Your task to perform on an android device: Search for flights from NYC to Mexico city Image 0: 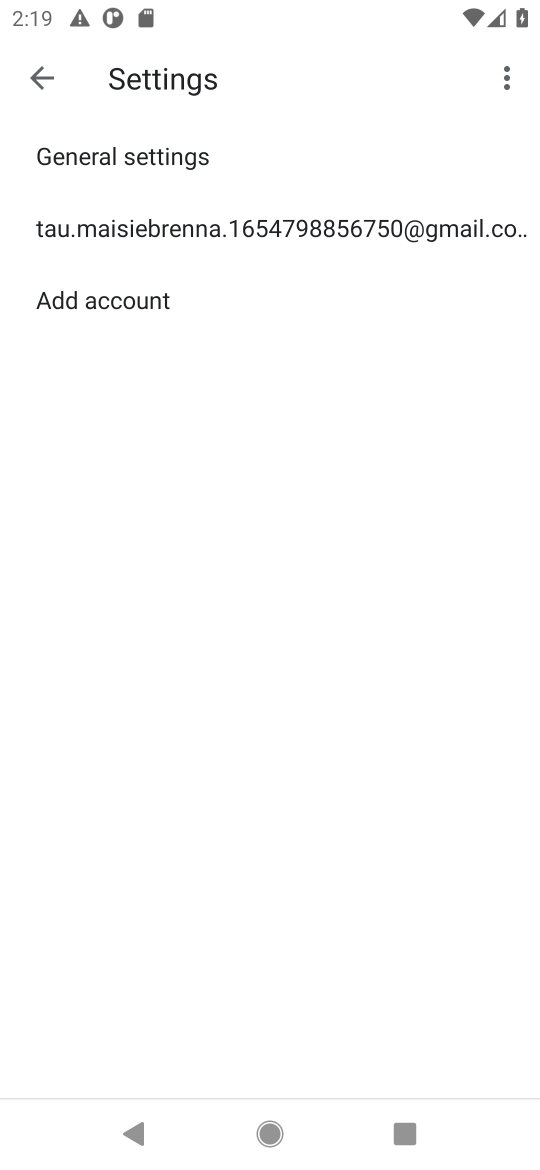
Step 0: press home button
Your task to perform on an android device: Search for flights from NYC to Mexico city Image 1: 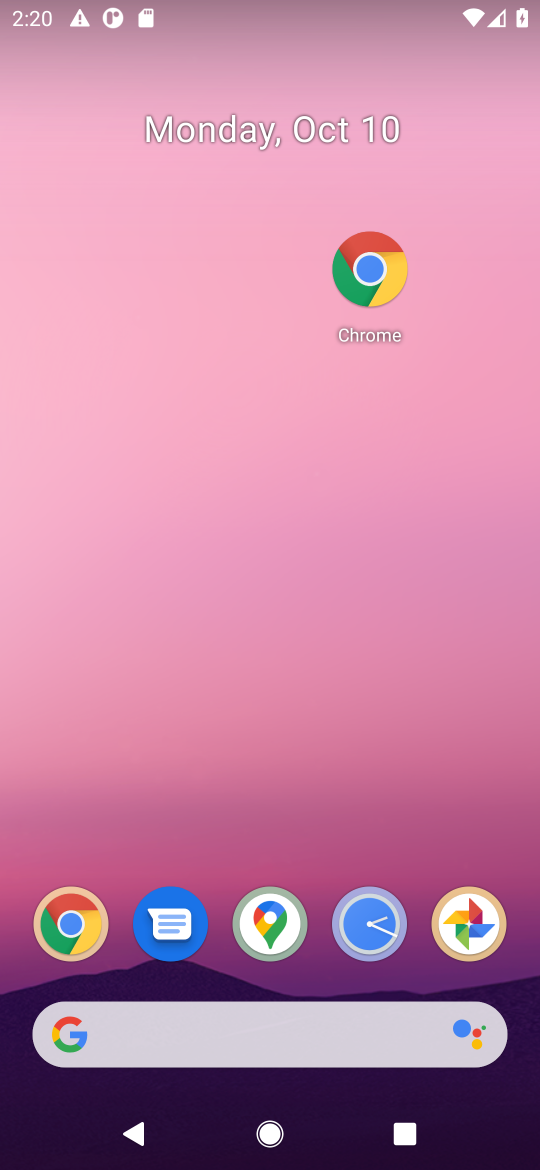
Step 1: drag from (266, 846) to (375, 24)
Your task to perform on an android device: Search for flights from NYC to Mexico city Image 2: 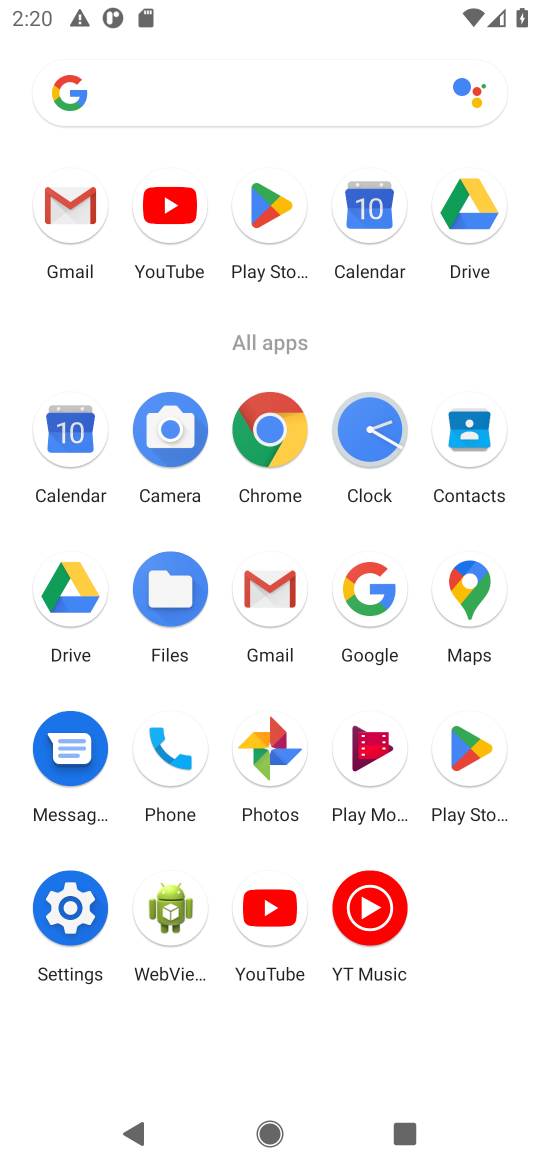
Step 2: click (262, 416)
Your task to perform on an android device: Search for flights from NYC to Mexico city Image 3: 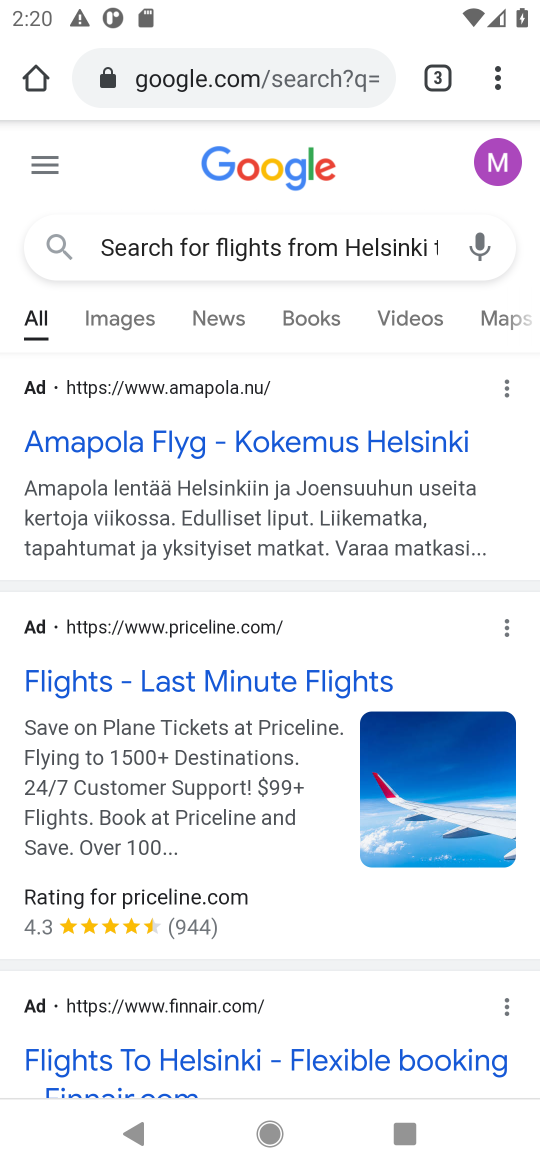
Step 3: click (224, 81)
Your task to perform on an android device: Search for flights from NYC to Mexico city Image 4: 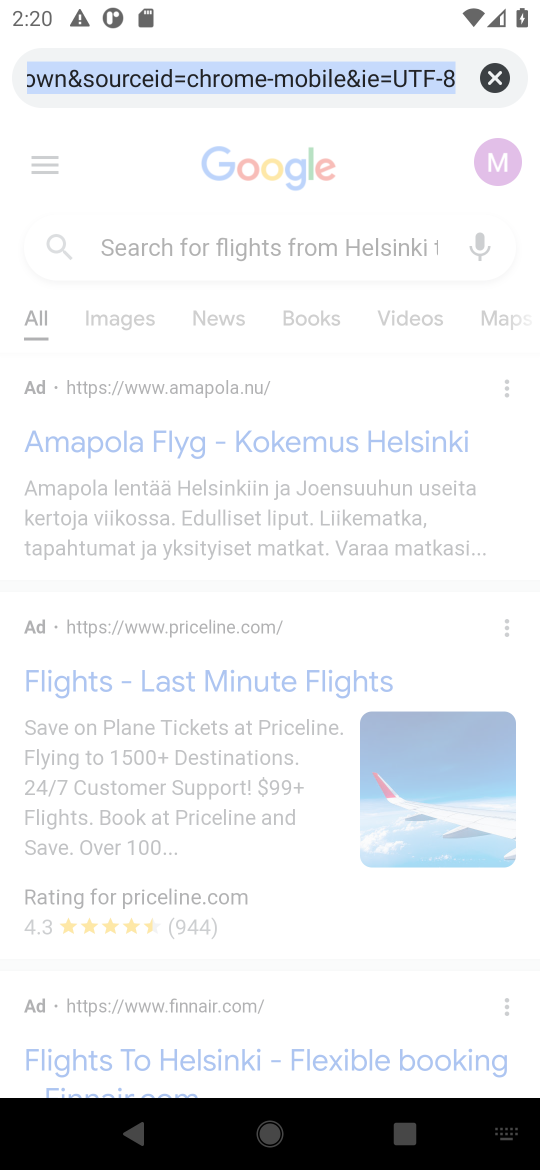
Step 4: click (492, 79)
Your task to perform on an android device: Search for flights from NYC to Mexico city Image 5: 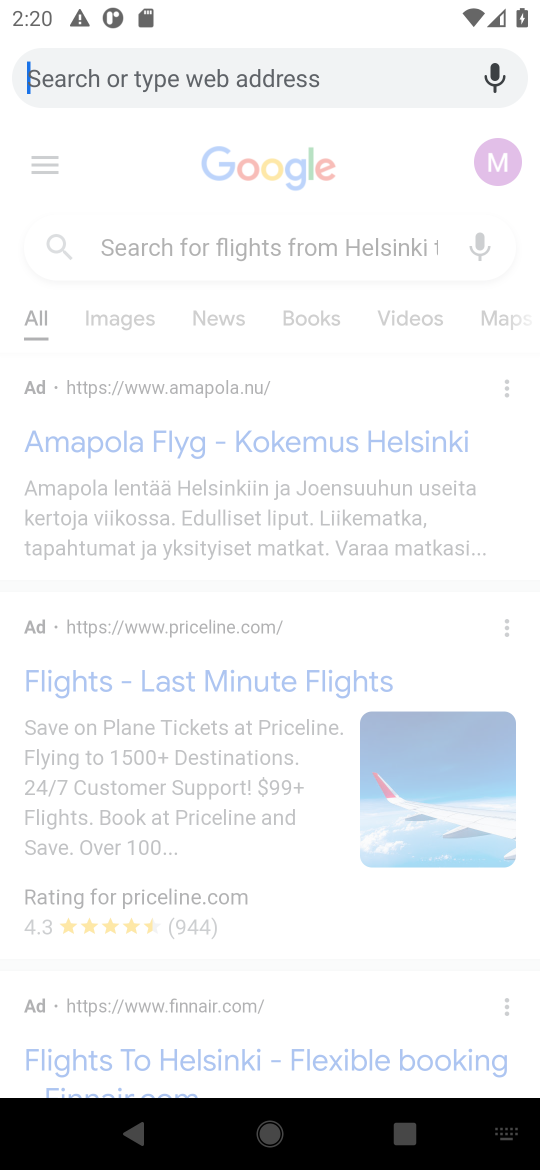
Step 5: type "Search for flights from NYC to Mexico city"
Your task to perform on an android device: Search for flights from NYC to Mexico city Image 6: 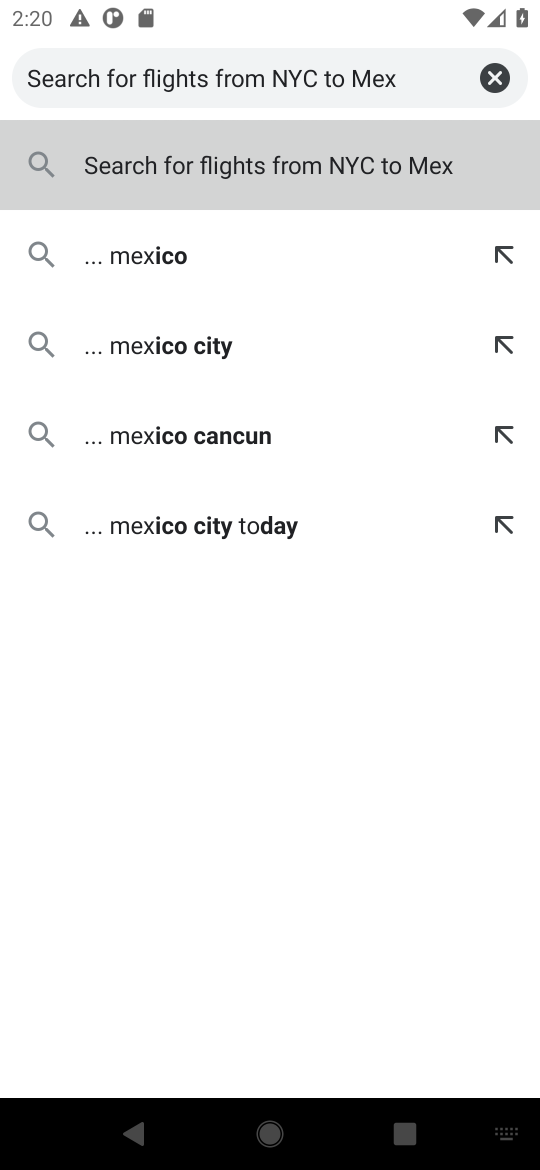
Step 6: click (142, 157)
Your task to perform on an android device: Search for flights from NYC to Mexico city Image 7: 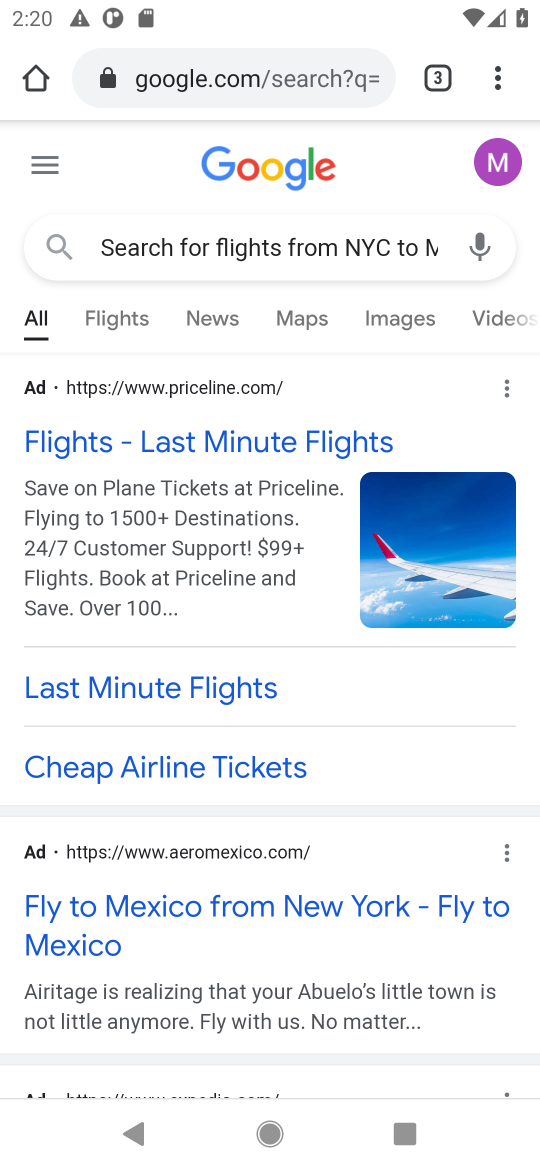
Step 7: task complete